Your task to perform on an android device: Open calendar and show me the third week of next month Image 0: 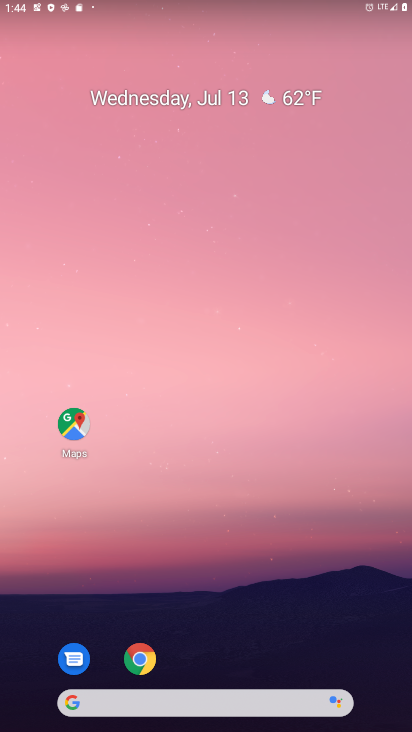
Step 0: drag from (224, 730) to (190, 174)
Your task to perform on an android device: Open calendar and show me the third week of next month Image 1: 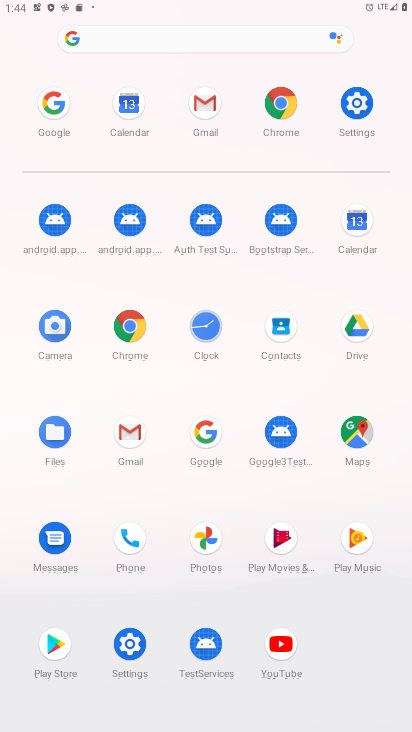
Step 1: click (358, 219)
Your task to perform on an android device: Open calendar and show me the third week of next month Image 2: 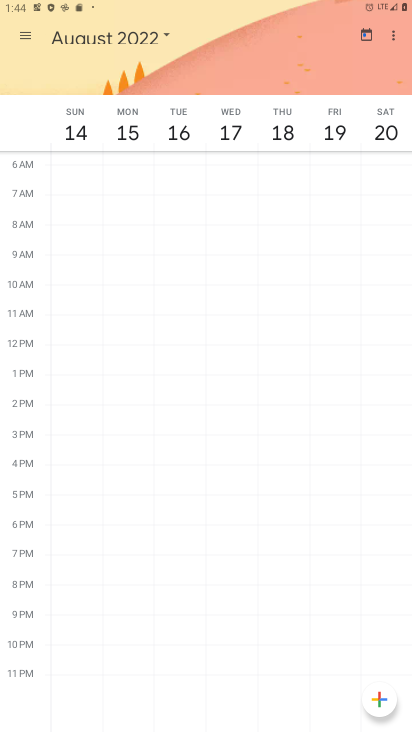
Step 2: click (167, 32)
Your task to perform on an android device: Open calendar and show me the third week of next month Image 3: 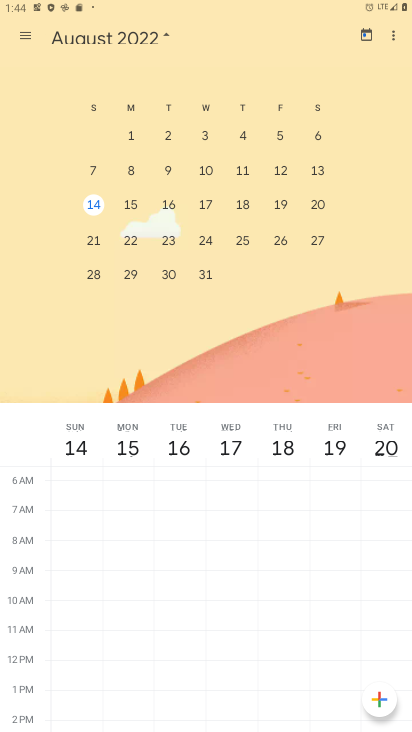
Step 3: click (130, 203)
Your task to perform on an android device: Open calendar and show me the third week of next month Image 4: 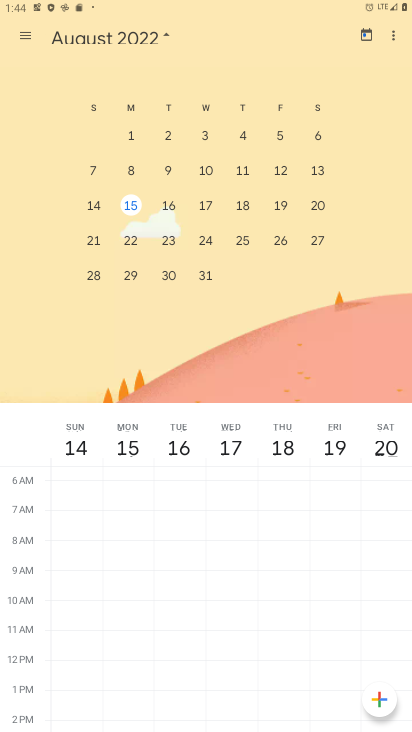
Step 4: click (129, 202)
Your task to perform on an android device: Open calendar and show me the third week of next month Image 5: 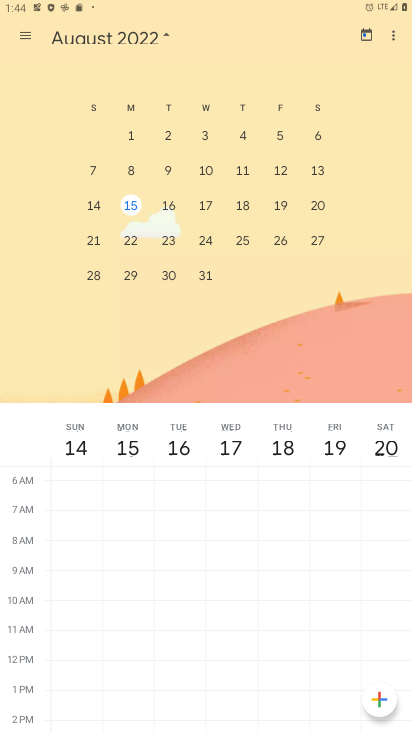
Step 5: click (129, 202)
Your task to perform on an android device: Open calendar and show me the third week of next month Image 6: 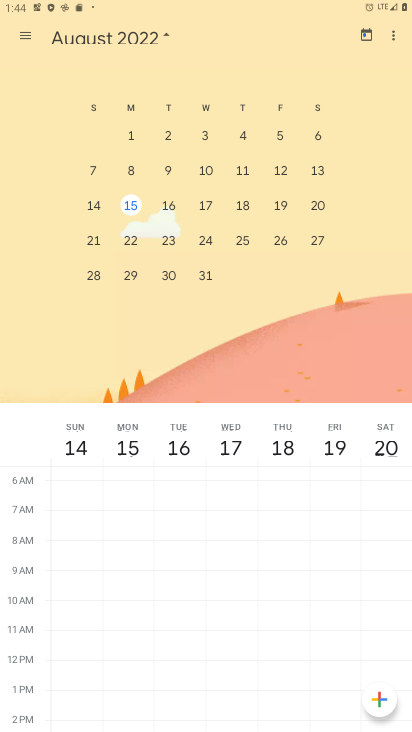
Step 6: click (29, 32)
Your task to perform on an android device: Open calendar and show me the third week of next month Image 7: 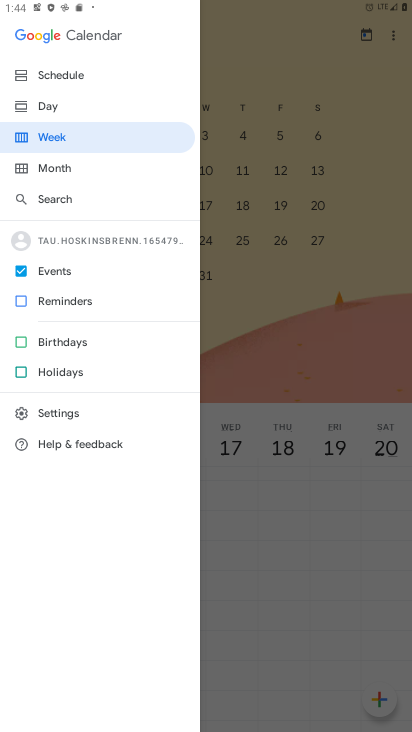
Step 7: click (73, 128)
Your task to perform on an android device: Open calendar and show me the third week of next month Image 8: 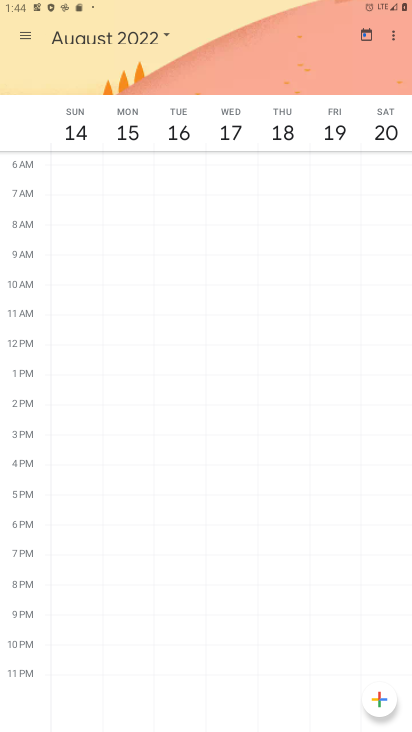
Step 8: task complete